Your task to perform on an android device: Open the web browser Image 0: 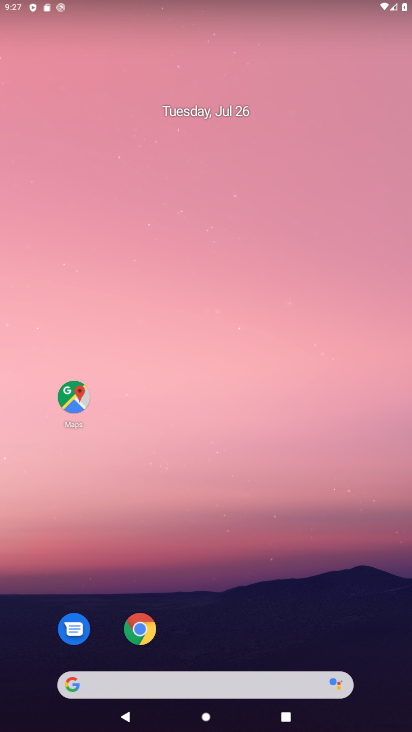
Step 0: click (141, 630)
Your task to perform on an android device: Open the web browser Image 1: 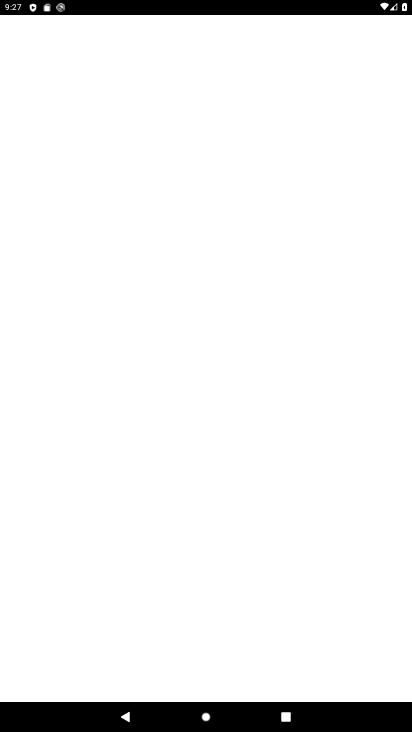
Step 1: task complete